Your task to perform on an android device: Turn on the flashlight Image 0: 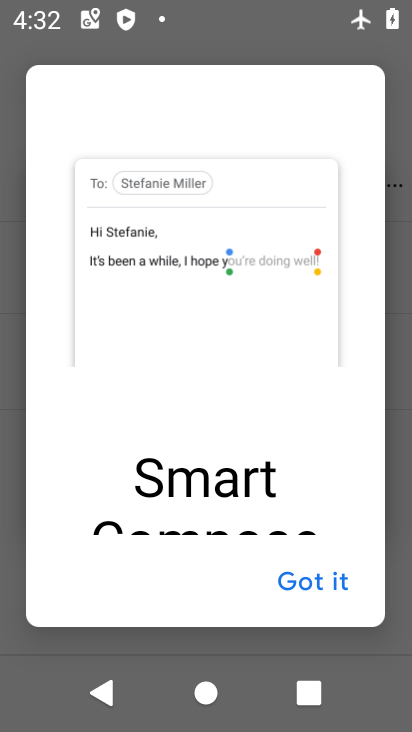
Step 0: press home button
Your task to perform on an android device: Turn on the flashlight Image 1: 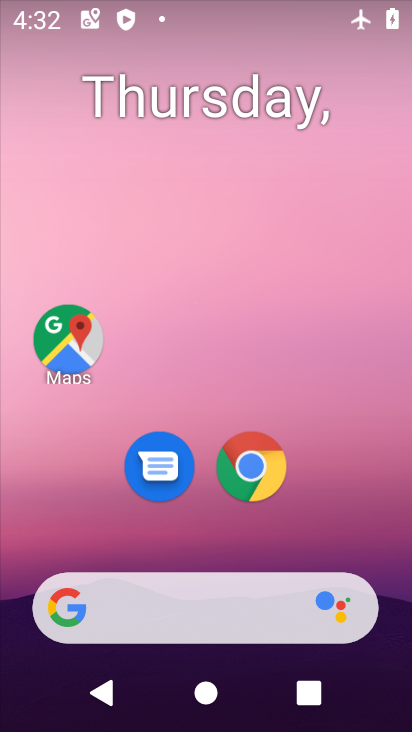
Step 1: drag from (204, 551) to (195, 30)
Your task to perform on an android device: Turn on the flashlight Image 2: 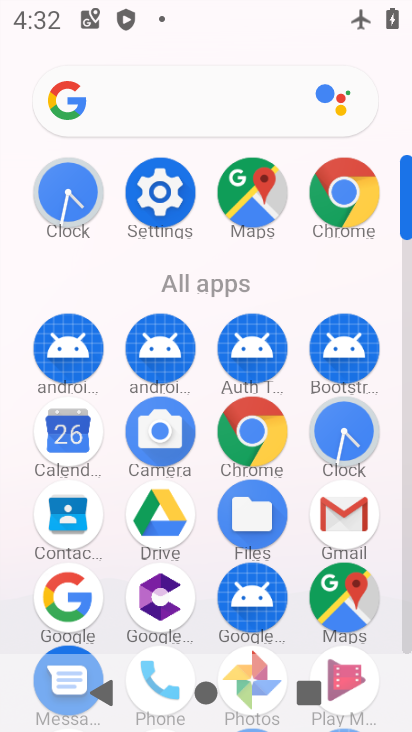
Step 2: click (157, 185)
Your task to perform on an android device: Turn on the flashlight Image 3: 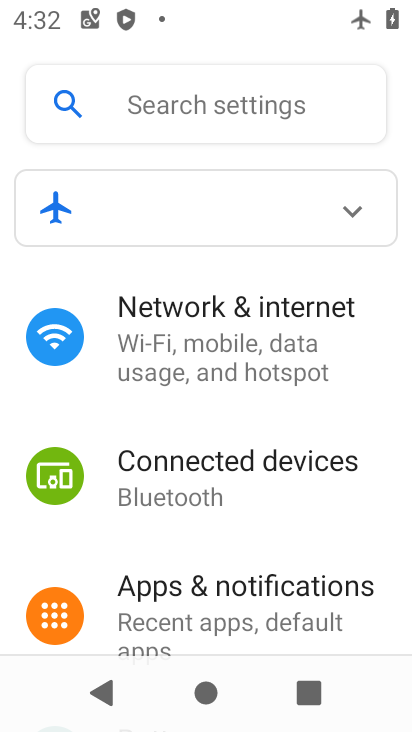
Step 3: click (171, 102)
Your task to perform on an android device: Turn on the flashlight Image 4: 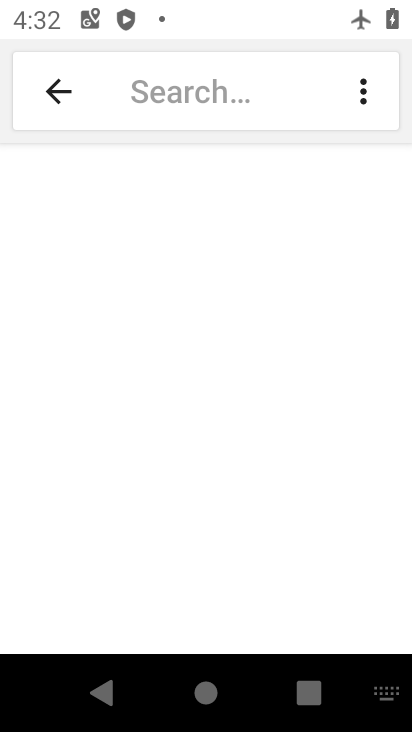
Step 4: type "flashlight"
Your task to perform on an android device: Turn on the flashlight Image 5: 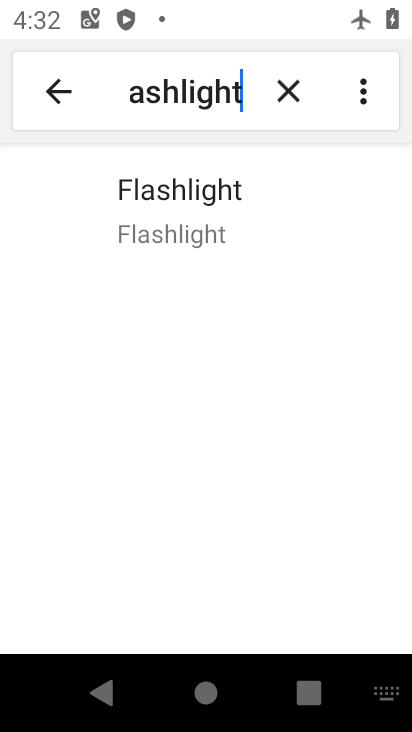
Step 5: click (239, 205)
Your task to perform on an android device: Turn on the flashlight Image 6: 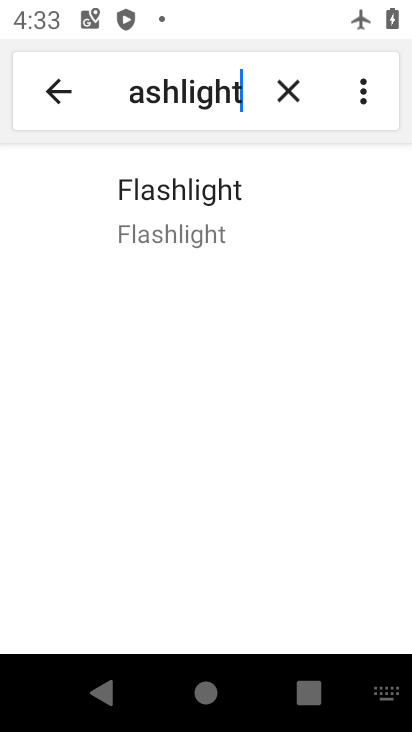
Step 6: click (239, 211)
Your task to perform on an android device: Turn on the flashlight Image 7: 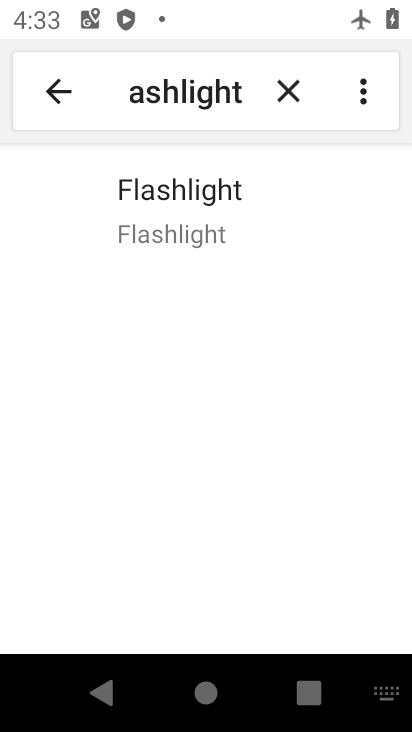
Step 7: task complete